Your task to perform on an android device: What's on my calendar today? Image 0: 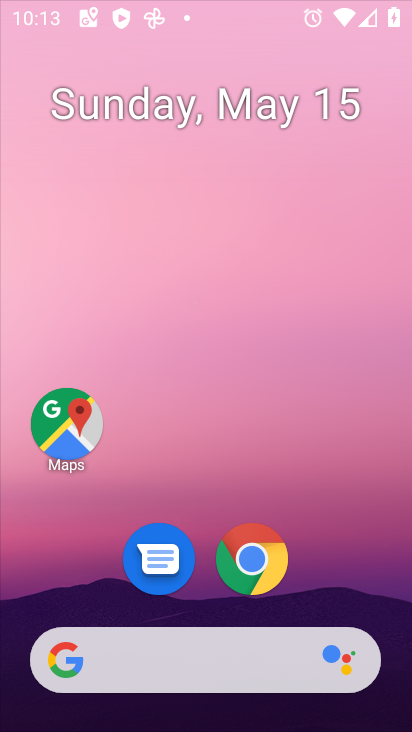
Step 0: drag from (346, 595) to (306, 60)
Your task to perform on an android device: What's on my calendar today? Image 1: 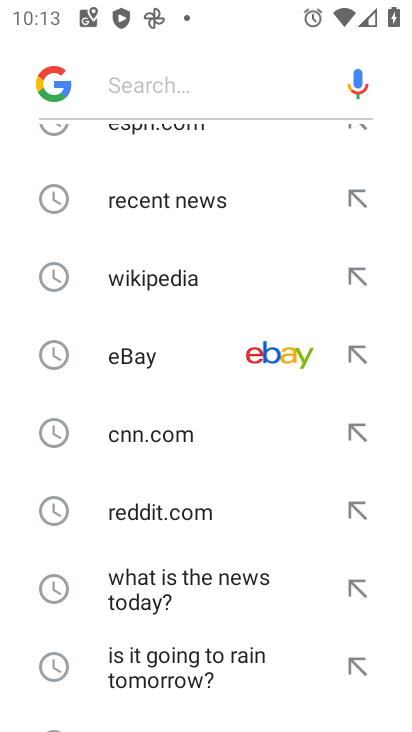
Step 1: press home button
Your task to perform on an android device: What's on my calendar today? Image 2: 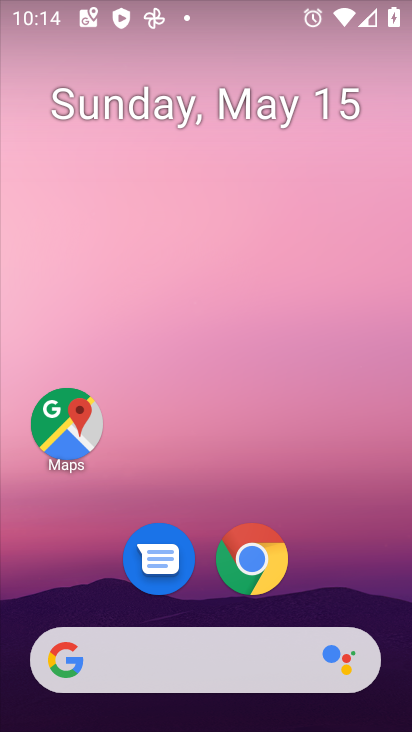
Step 2: drag from (351, 572) to (155, 23)
Your task to perform on an android device: What's on my calendar today? Image 3: 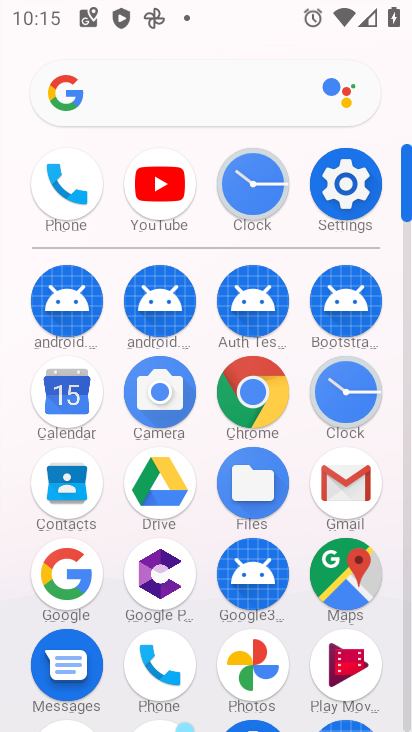
Step 3: click (65, 403)
Your task to perform on an android device: What's on my calendar today? Image 4: 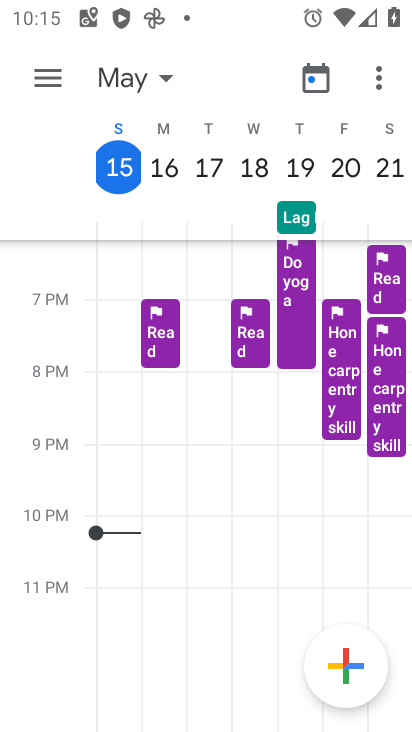
Step 4: click (173, 176)
Your task to perform on an android device: What's on my calendar today? Image 5: 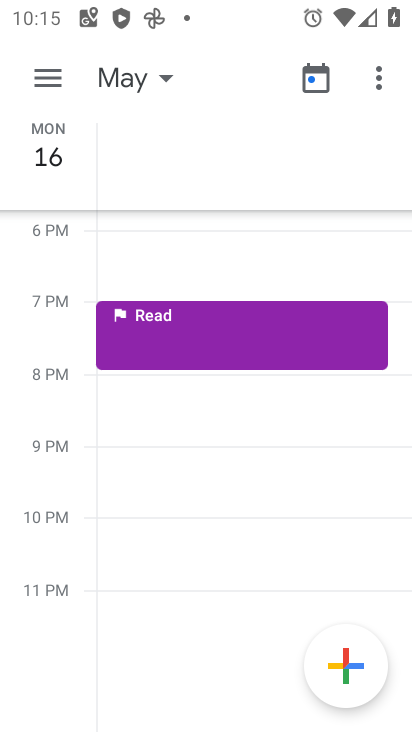
Step 5: task complete